Your task to perform on an android device: check battery use Image 0: 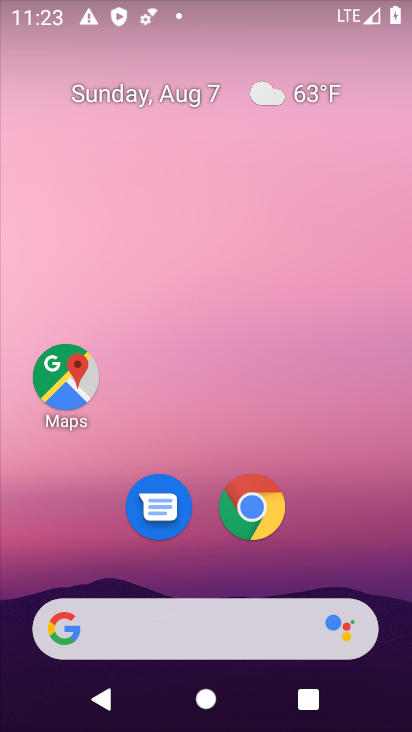
Step 0: drag from (349, 552) to (295, 191)
Your task to perform on an android device: check battery use Image 1: 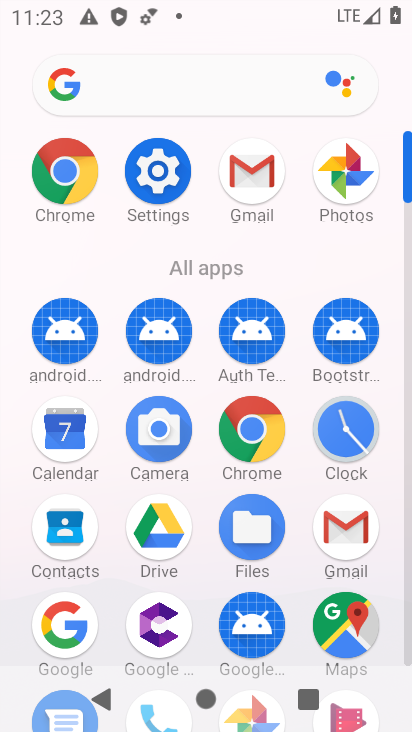
Step 1: drag from (297, 286) to (261, 86)
Your task to perform on an android device: check battery use Image 2: 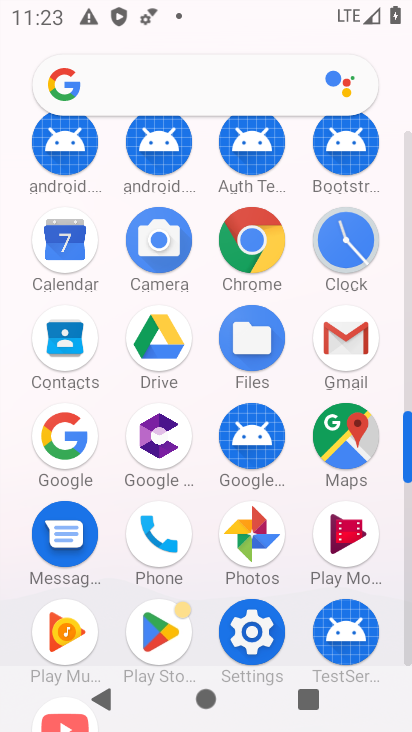
Step 2: click (253, 633)
Your task to perform on an android device: check battery use Image 3: 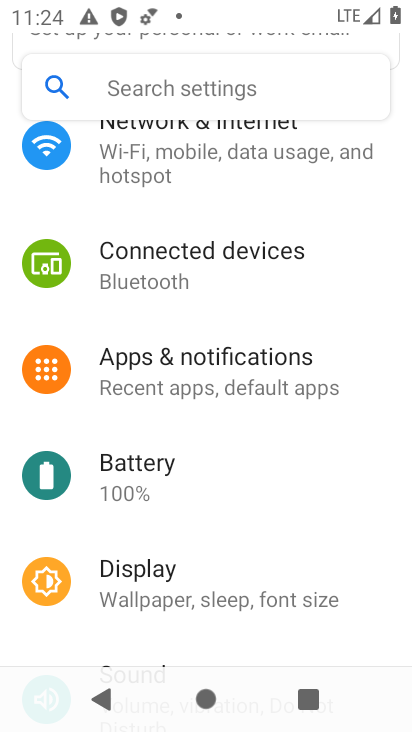
Step 3: click (198, 493)
Your task to perform on an android device: check battery use Image 4: 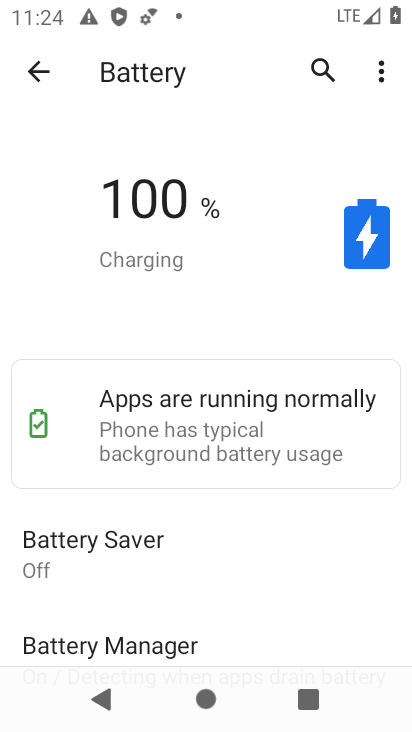
Step 4: click (387, 74)
Your task to perform on an android device: check battery use Image 5: 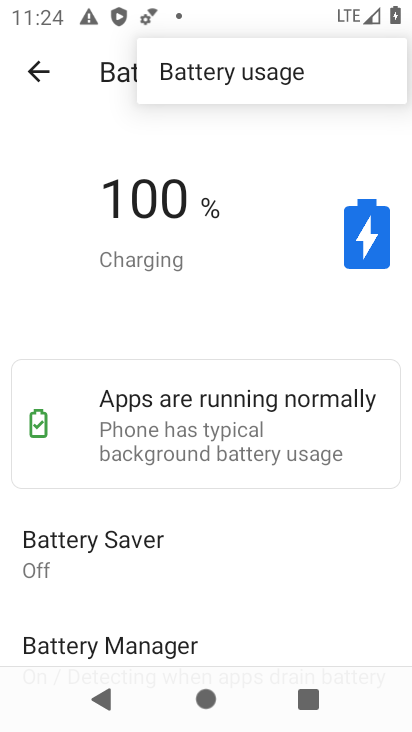
Step 5: click (298, 75)
Your task to perform on an android device: check battery use Image 6: 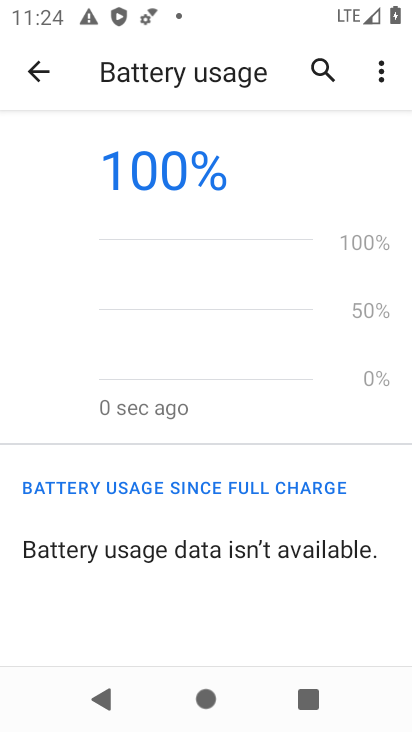
Step 6: click (298, 75)
Your task to perform on an android device: check battery use Image 7: 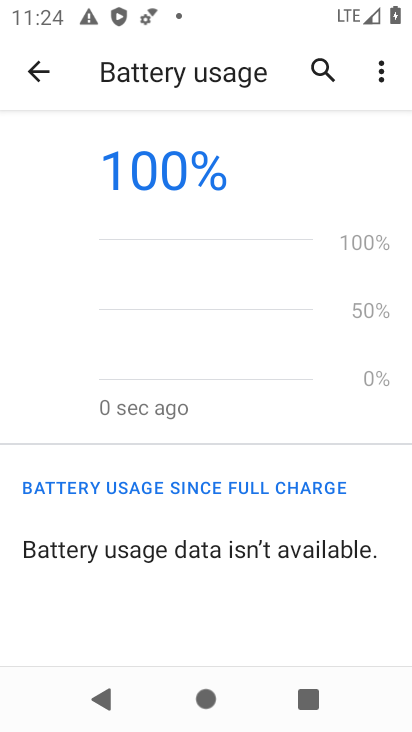
Step 7: task complete